Your task to perform on an android device: Show me the alarms in the clock app Image 0: 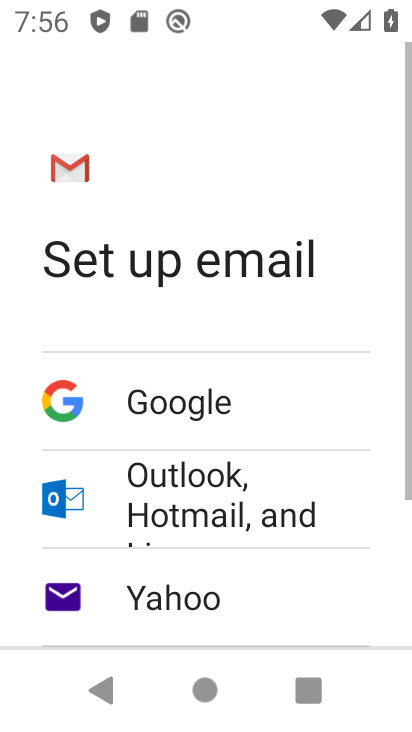
Step 0: press home button
Your task to perform on an android device: Show me the alarms in the clock app Image 1: 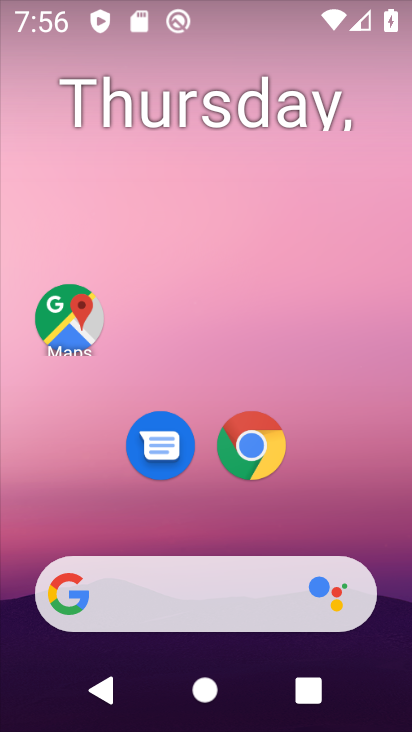
Step 1: drag from (13, 681) to (366, 179)
Your task to perform on an android device: Show me the alarms in the clock app Image 2: 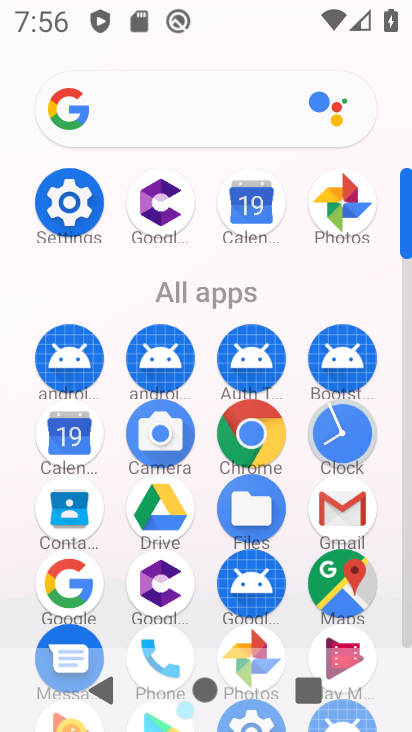
Step 2: click (339, 423)
Your task to perform on an android device: Show me the alarms in the clock app Image 3: 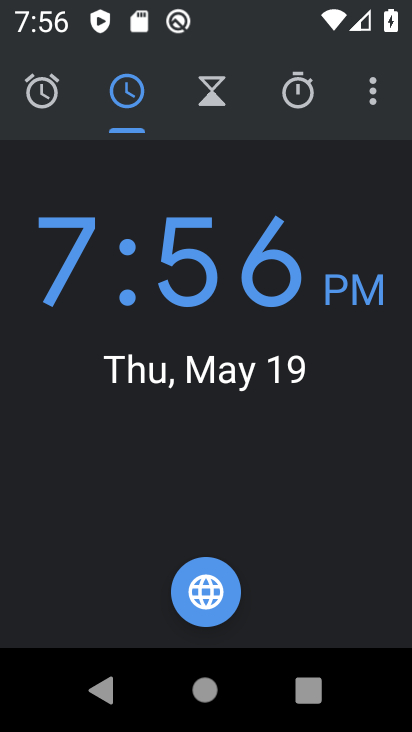
Step 3: click (42, 91)
Your task to perform on an android device: Show me the alarms in the clock app Image 4: 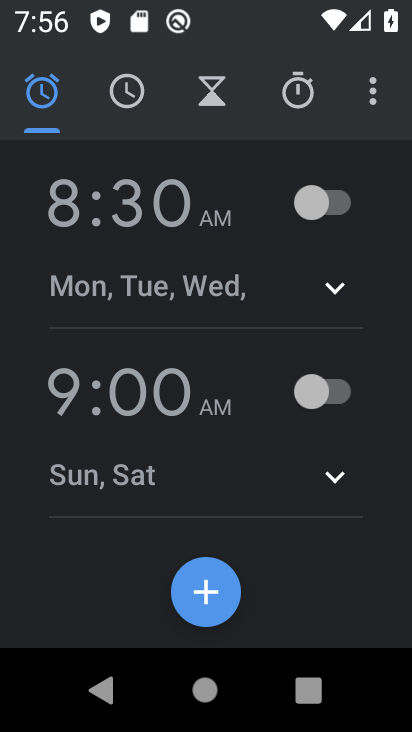
Step 4: task complete